Your task to perform on an android device: Go to accessibility settings Image 0: 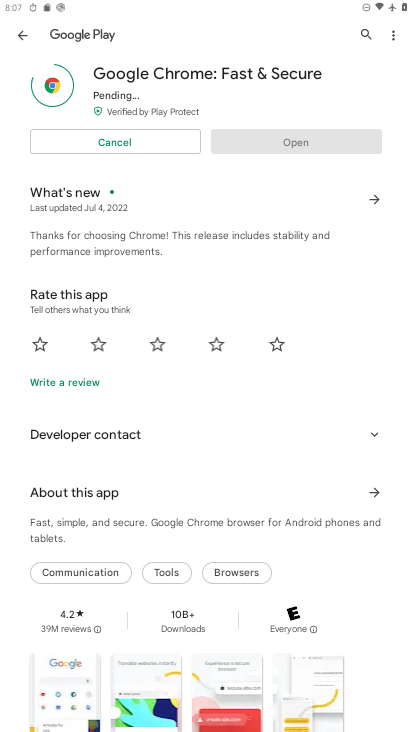
Step 0: press back button
Your task to perform on an android device: Go to accessibility settings Image 1: 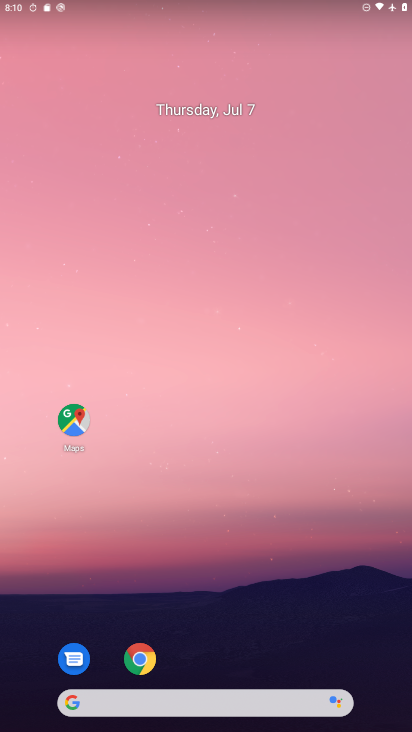
Step 1: drag from (357, 686) to (272, 35)
Your task to perform on an android device: Go to accessibility settings Image 2: 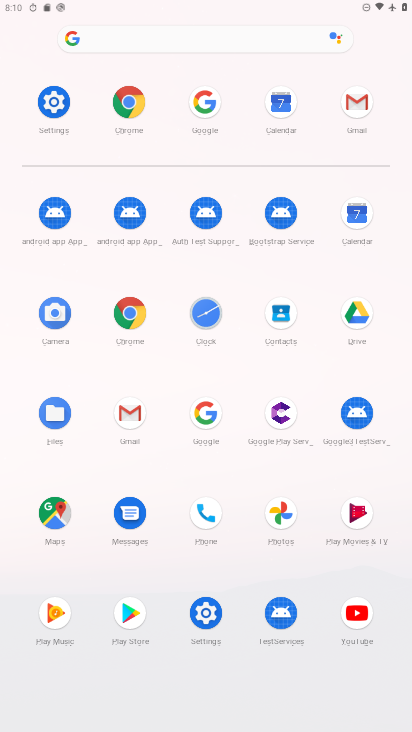
Step 2: click (44, 109)
Your task to perform on an android device: Go to accessibility settings Image 3: 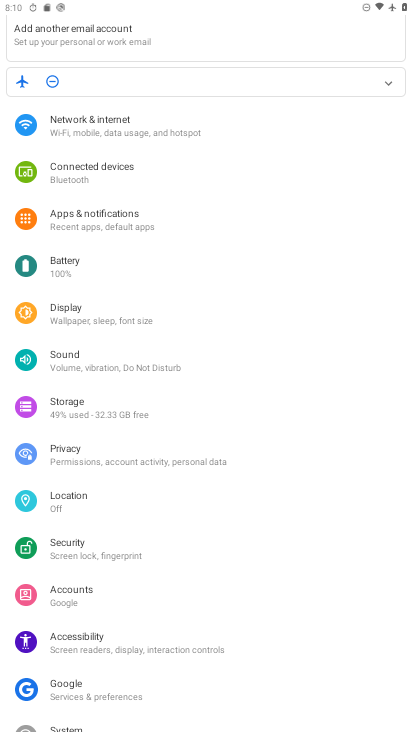
Step 3: click (108, 648)
Your task to perform on an android device: Go to accessibility settings Image 4: 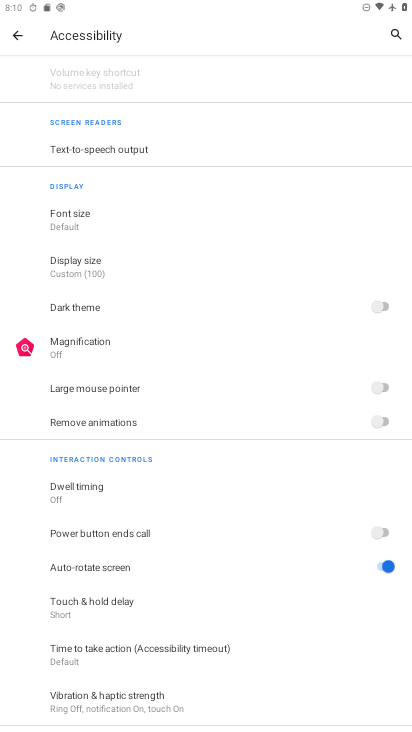
Step 4: task complete